Your task to perform on an android device: toggle airplane mode Image 0: 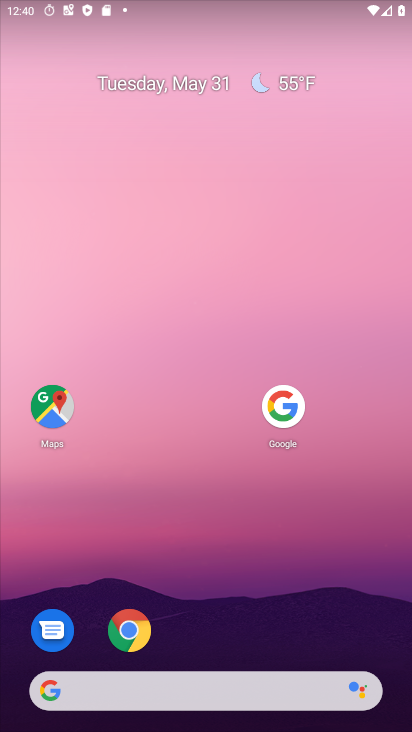
Step 0: press home button
Your task to perform on an android device: toggle airplane mode Image 1: 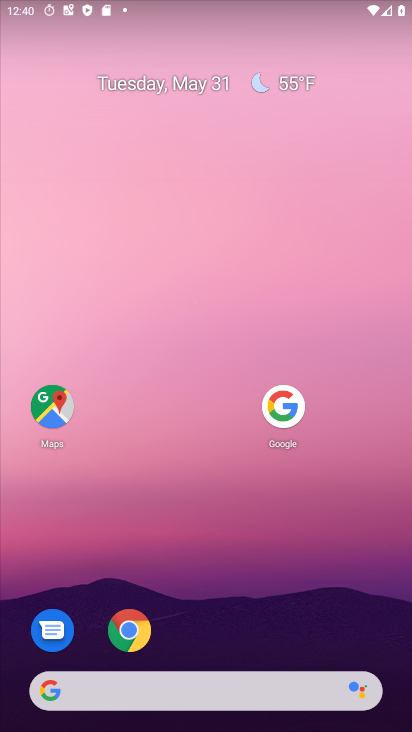
Step 1: drag from (224, 689) to (251, 139)
Your task to perform on an android device: toggle airplane mode Image 2: 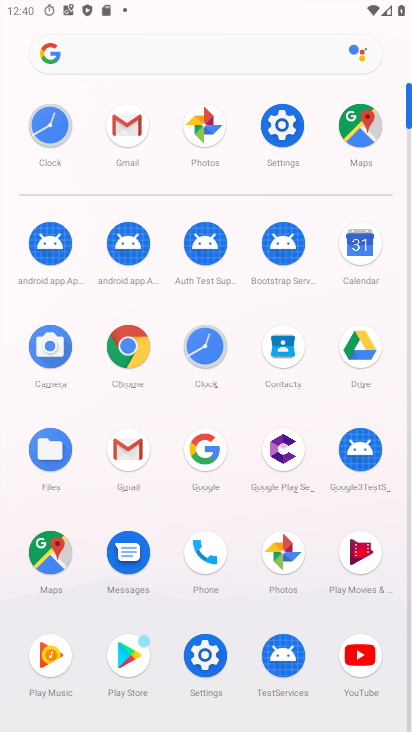
Step 2: click (287, 135)
Your task to perform on an android device: toggle airplane mode Image 3: 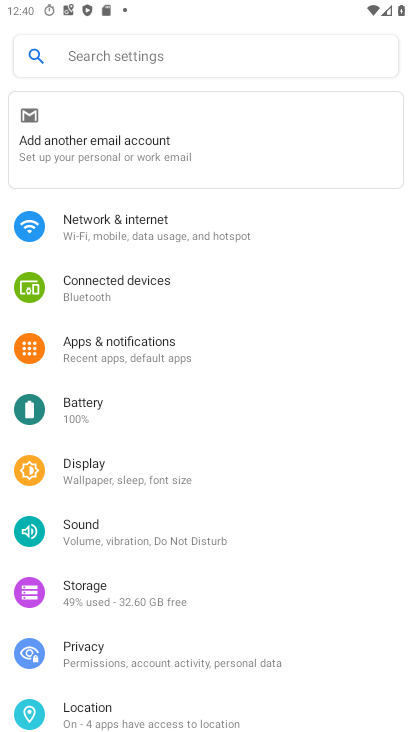
Step 3: click (114, 213)
Your task to perform on an android device: toggle airplane mode Image 4: 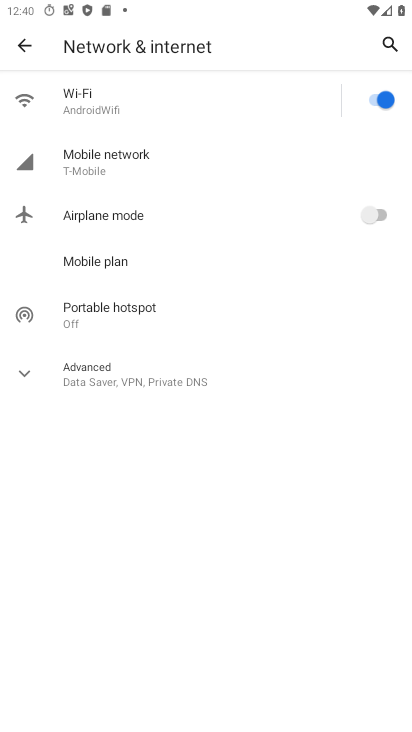
Step 4: click (380, 199)
Your task to perform on an android device: toggle airplane mode Image 5: 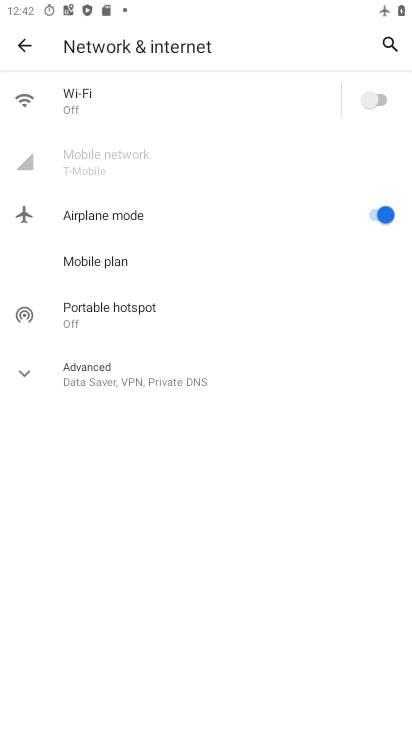
Step 5: task complete